Your task to perform on an android device: Open Maps and search for coffee Image 0: 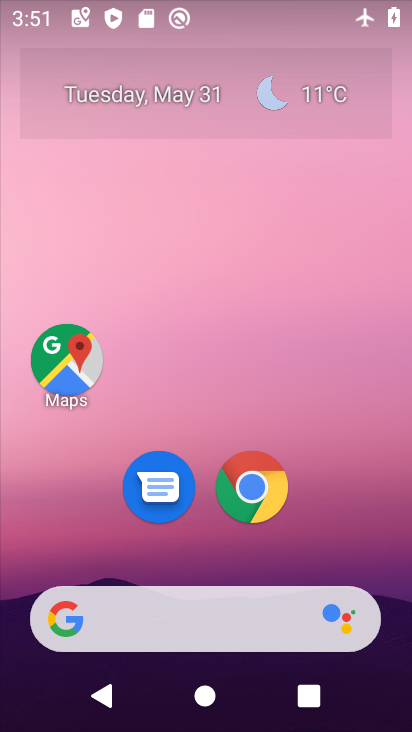
Step 0: click (68, 362)
Your task to perform on an android device: Open Maps and search for coffee Image 1: 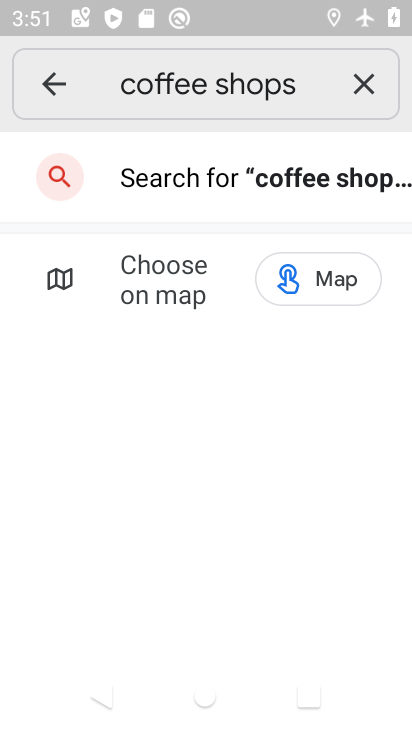
Step 1: task complete